Your task to perform on an android device: Do I have any events tomorrow? Image 0: 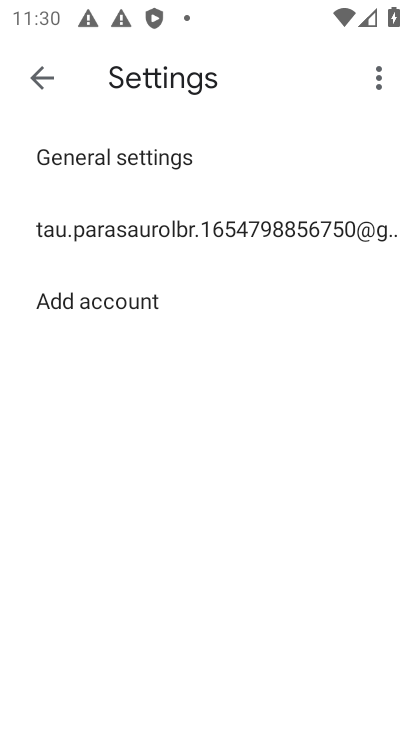
Step 0: press home button
Your task to perform on an android device: Do I have any events tomorrow? Image 1: 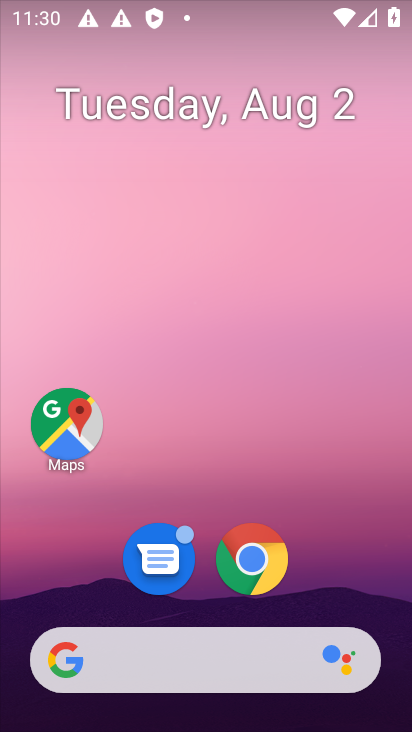
Step 1: drag from (212, 566) to (202, 47)
Your task to perform on an android device: Do I have any events tomorrow? Image 2: 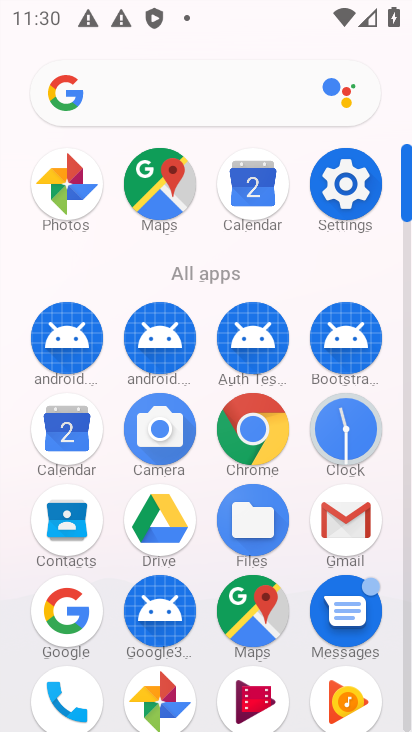
Step 2: click (71, 428)
Your task to perform on an android device: Do I have any events tomorrow? Image 3: 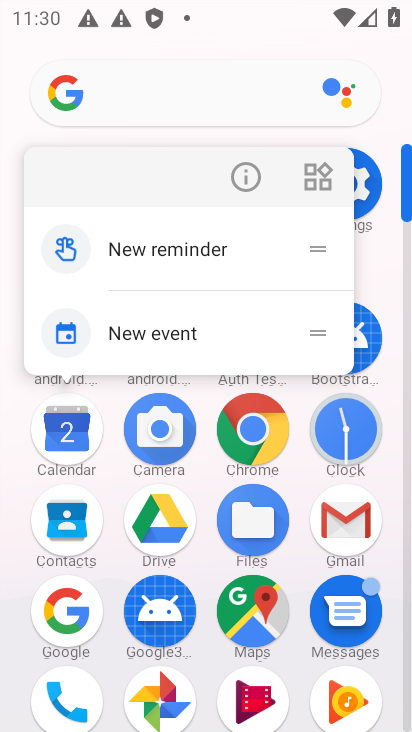
Step 3: click (59, 447)
Your task to perform on an android device: Do I have any events tomorrow? Image 4: 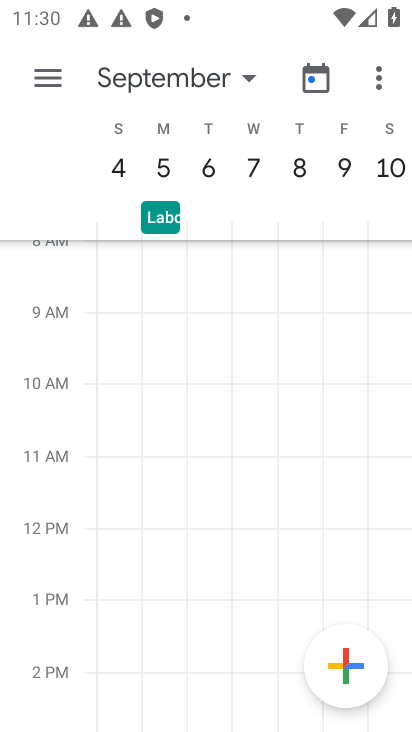
Step 4: click (208, 169)
Your task to perform on an android device: Do I have any events tomorrow? Image 5: 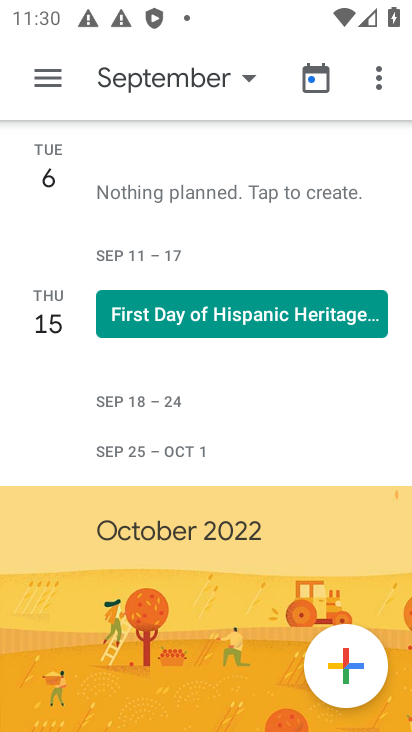
Step 5: task complete